Your task to perform on an android device: change alarm snooze length Image 0: 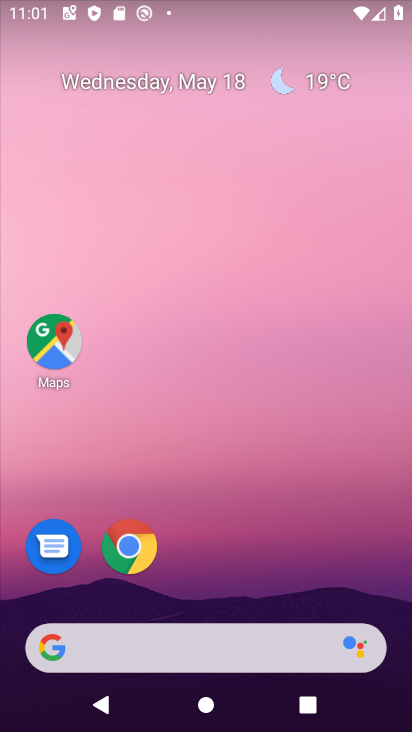
Step 0: drag from (216, 729) to (233, 52)
Your task to perform on an android device: change alarm snooze length Image 1: 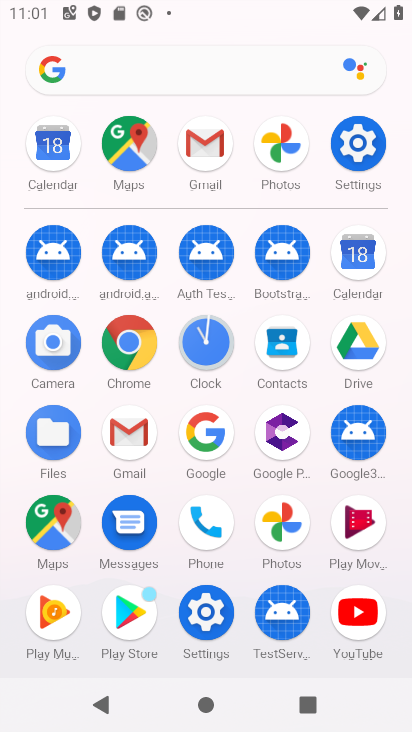
Step 1: click (211, 341)
Your task to perform on an android device: change alarm snooze length Image 2: 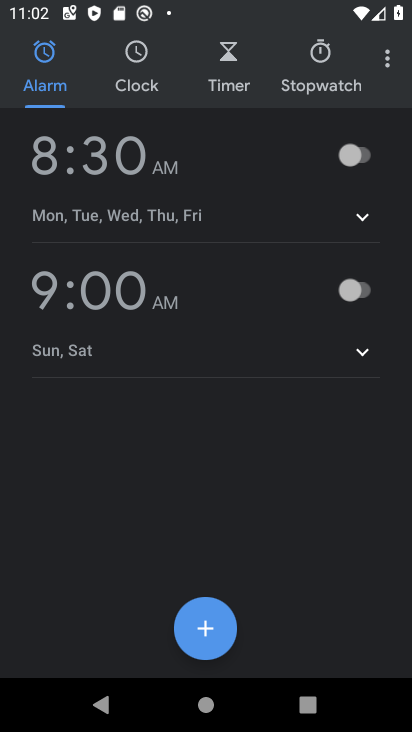
Step 2: click (385, 57)
Your task to perform on an android device: change alarm snooze length Image 3: 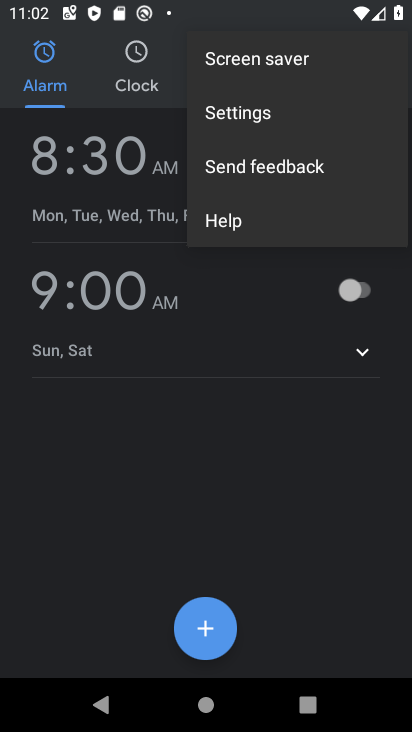
Step 3: click (244, 112)
Your task to perform on an android device: change alarm snooze length Image 4: 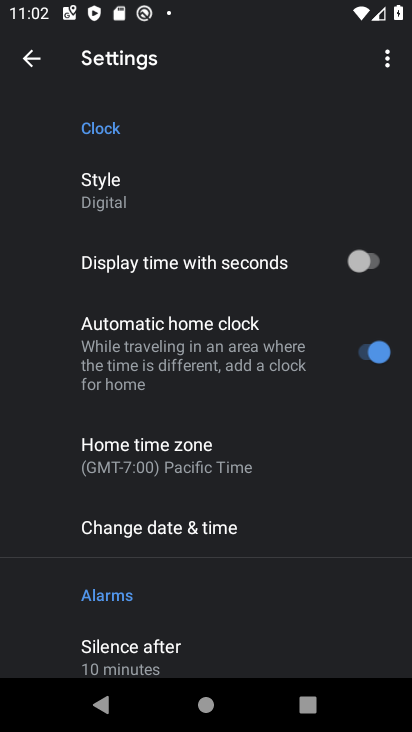
Step 4: drag from (150, 593) to (151, 199)
Your task to perform on an android device: change alarm snooze length Image 5: 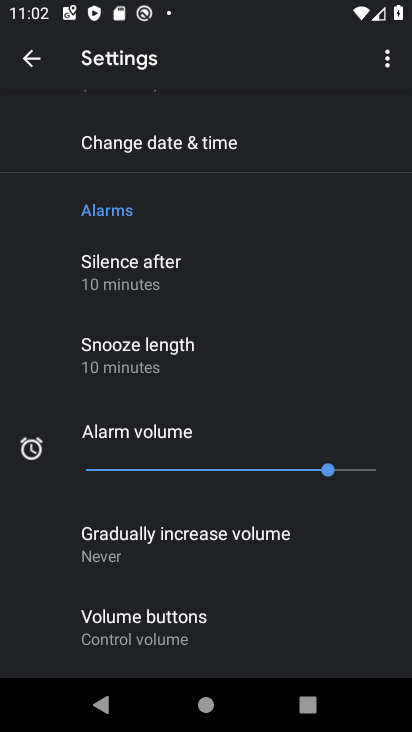
Step 5: click (127, 340)
Your task to perform on an android device: change alarm snooze length Image 6: 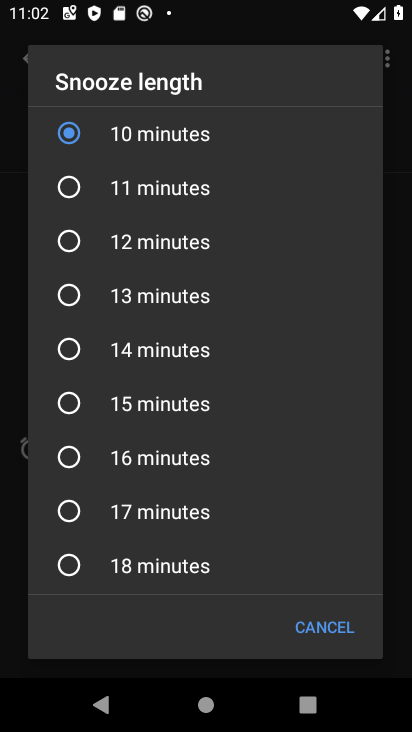
Step 6: click (65, 453)
Your task to perform on an android device: change alarm snooze length Image 7: 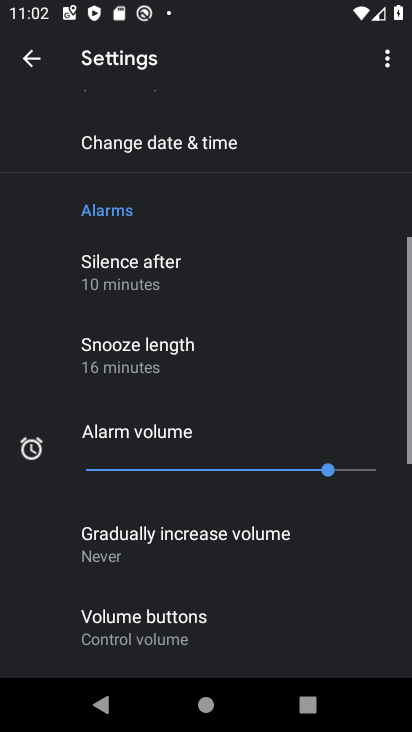
Step 7: task complete